Your task to perform on an android device: turn on notifications settings in the gmail app Image 0: 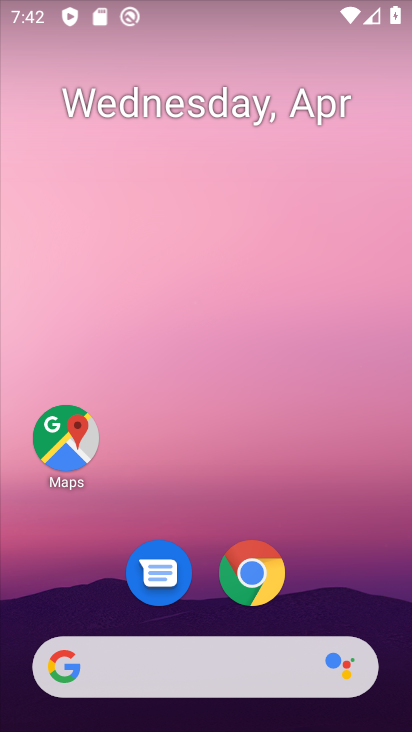
Step 0: drag from (54, 488) to (244, 162)
Your task to perform on an android device: turn on notifications settings in the gmail app Image 1: 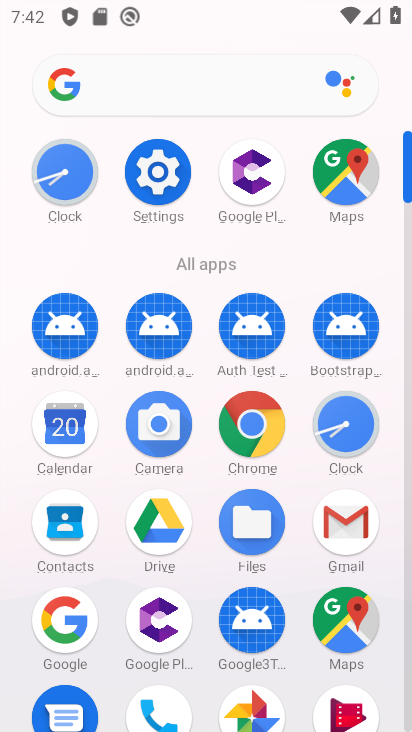
Step 1: click (325, 529)
Your task to perform on an android device: turn on notifications settings in the gmail app Image 2: 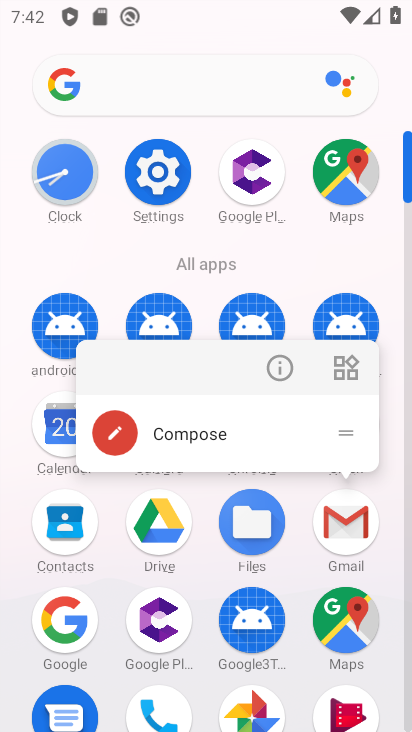
Step 2: click (285, 371)
Your task to perform on an android device: turn on notifications settings in the gmail app Image 3: 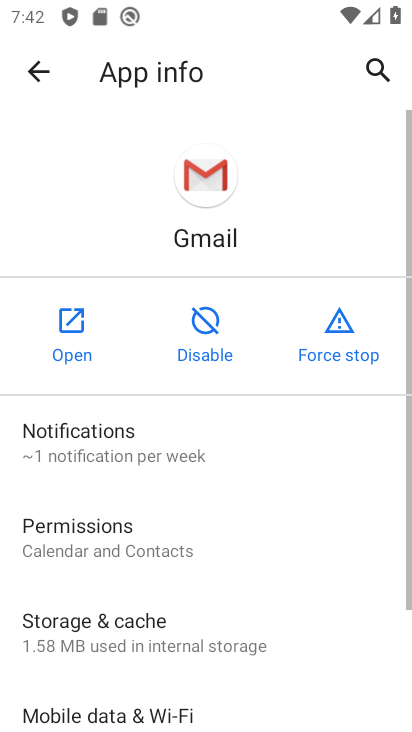
Step 3: click (68, 330)
Your task to perform on an android device: turn on notifications settings in the gmail app Image 4: 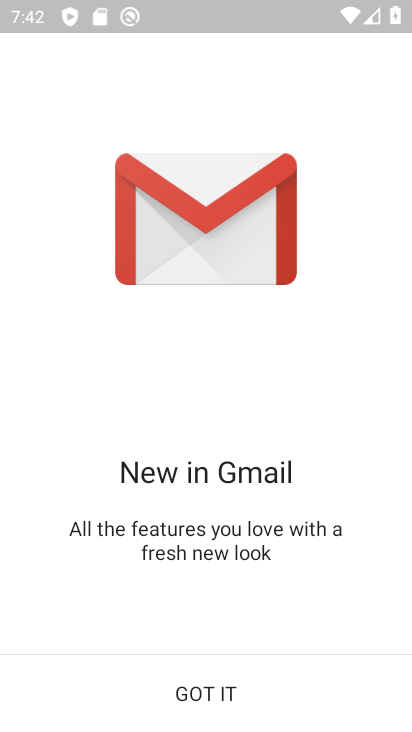
Step 4: click (210, 691)
Your task to perform on an android device: turn on notifications settings in the gmail app Image 5: 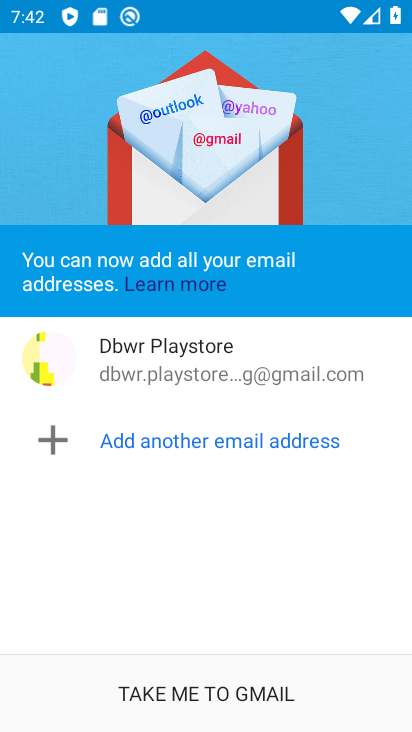
Step 5: click (226, 706)
Your task to perform on an android device: turn on notifications settings in the gmail app Image 6: 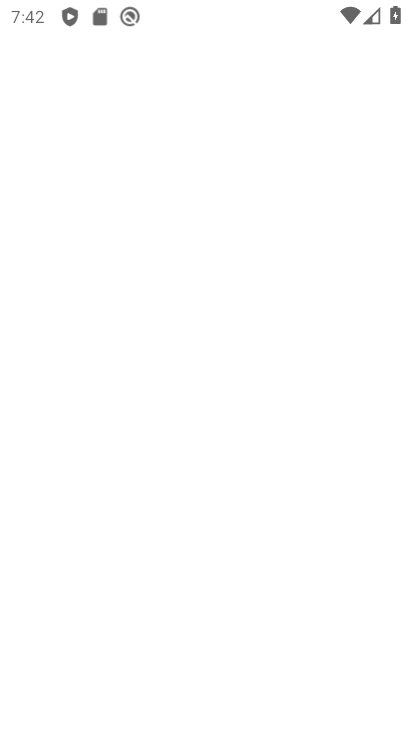
Step 6: click (64, 72)
Your task to perform on an android device: turn on notifications settings in the gmail app Image 7: 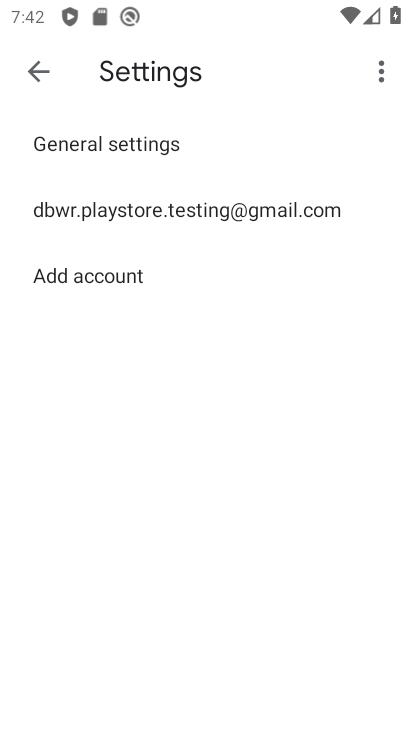
Step 7: click (154, 207)
Your task to perform on an android device: turn on notifications settings in the gmail app Image 8: 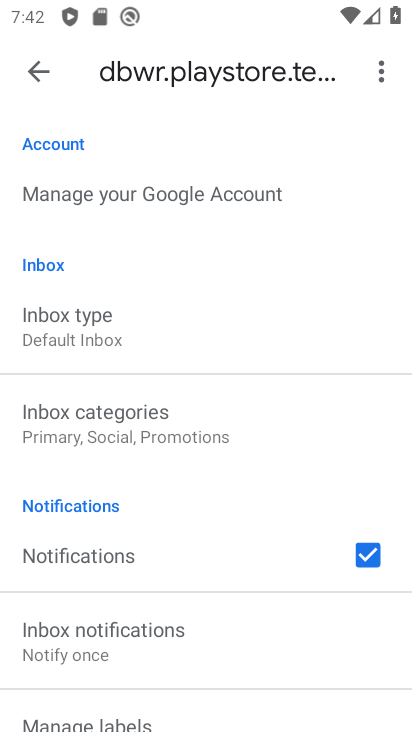
Step 8: drag from (218, 670) to (260, 326)
Your task to perform on an android device: turn on notifications settings in the gmail app Image 9: 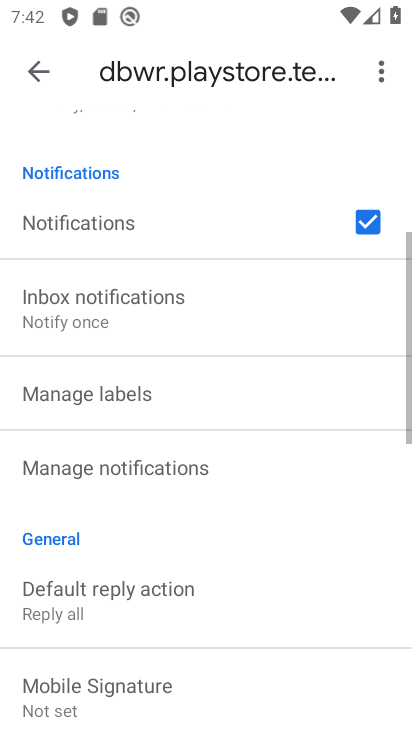
Step 9: drag from (251, 639) to (305, 338)
Your task to perform on an android device: turn on notifications settings in the gmail app Image 10: 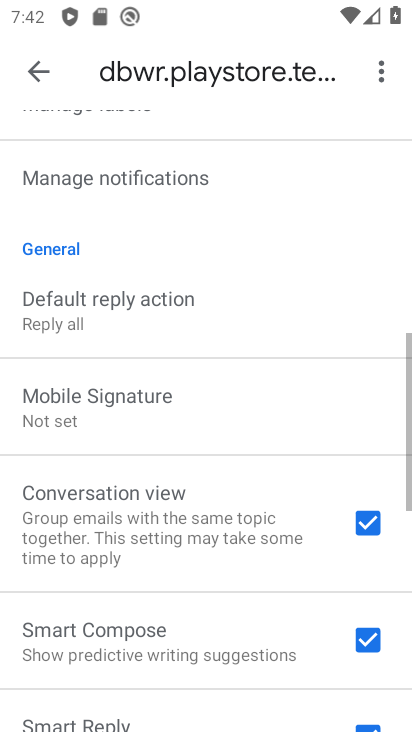
Step 10: drag from (236, 668) to (277, 339)
Your task to perform on an android device: turn on notifications settings in the gmail app Image 11: 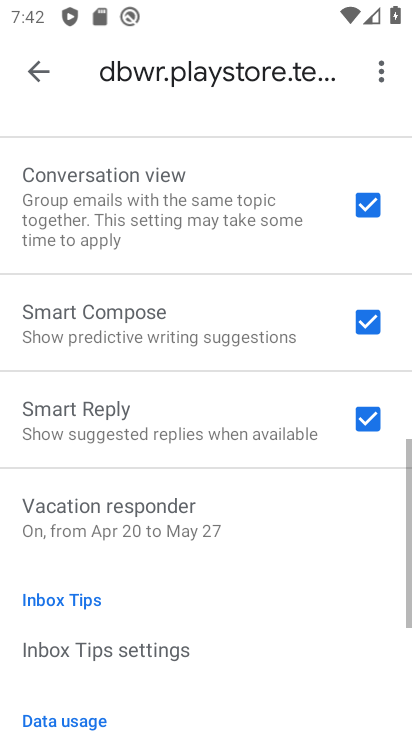
Step 11: drag from (263, 227) to (212, 497)
Your task to perform on an android device: turn on notifications settings in the gmail app Image 12: 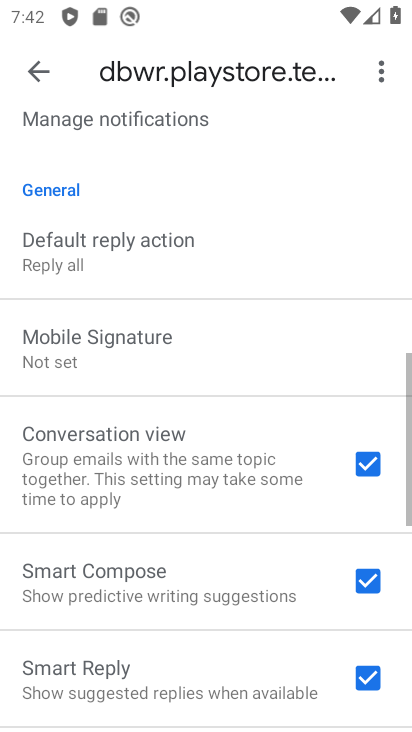
Step 12: drag from (223, 241) to (212, 577)
Your task to perform on an android device: turn on notifications settings in the gmail app Image 13: 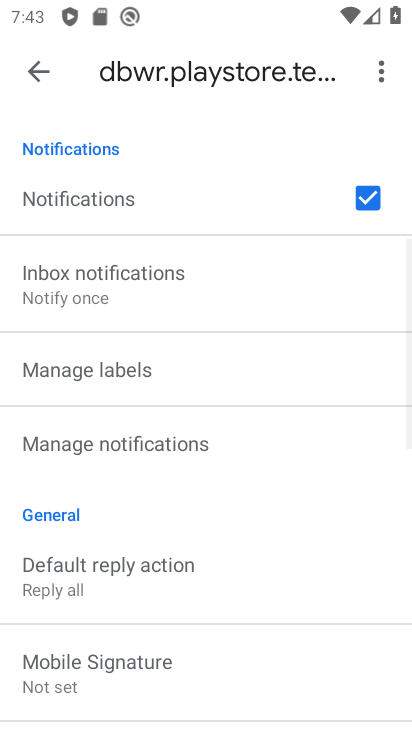
Step 13: click (110, 442)
Your task to perform on an android device: turn on notifications settings in the gmail app Image 14: 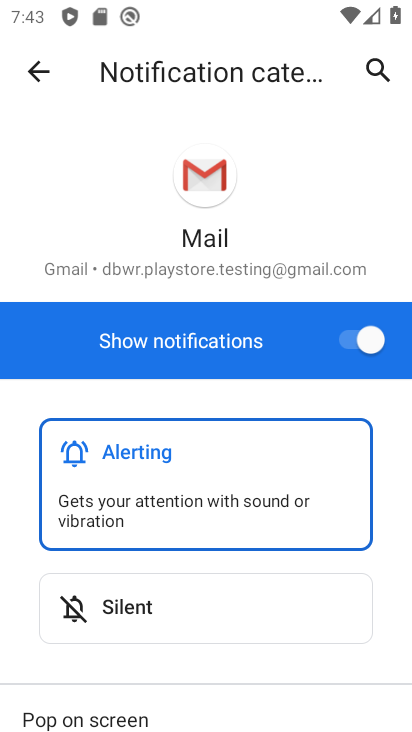
Step 14: task complete